Your task to perform on an android device: turn on data saver in the chrome app Image 0: 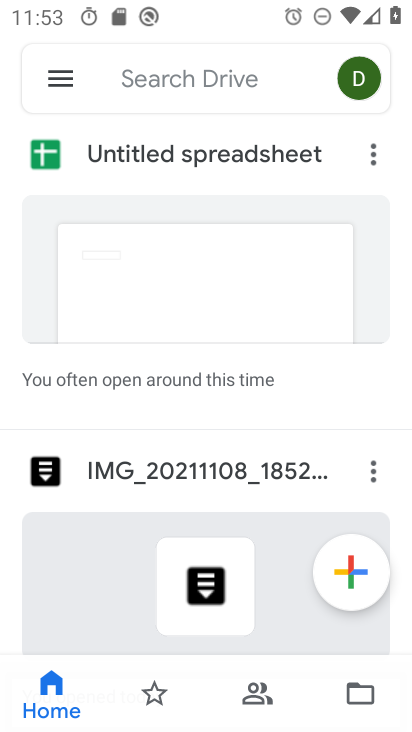
Step 0: press home button
Your task to perform on an android device: turn on data saver in the chrome app Image 1: 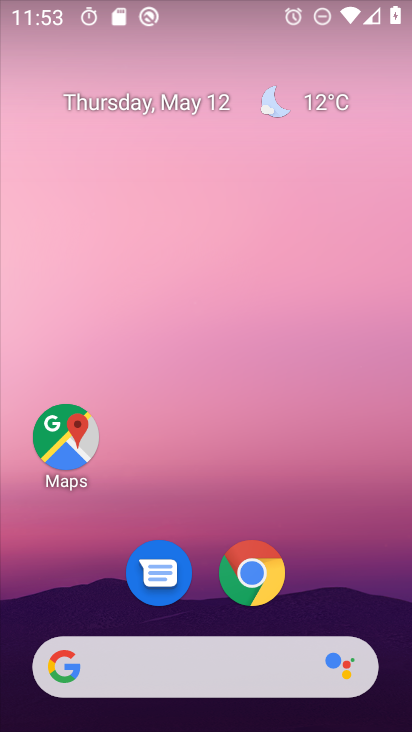
Step 1: click (243, 561)
Your task to perform on an android device: turn on data saver in the chrome app Image 2: 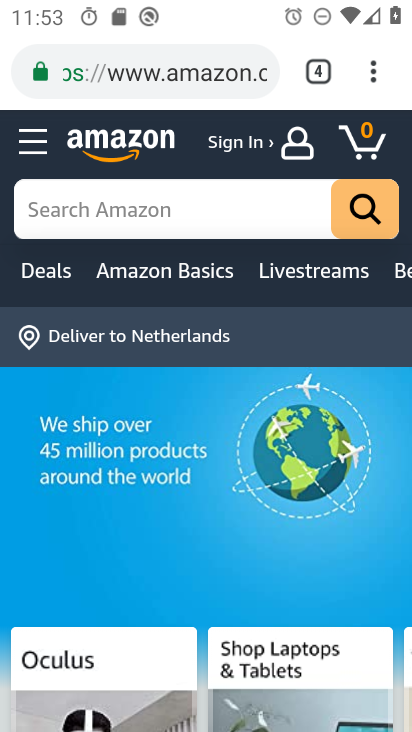
Step 2: click (376, 69)
Your task to perform on an android device: turn on data saver in the chrome app Image 3: 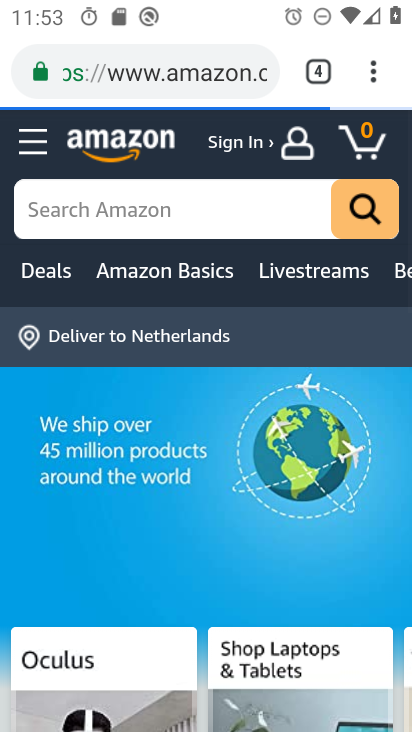
Step 3: click (376, 69)
Your task to perform on an android device: turn on data saver in the chrome app Image 4: 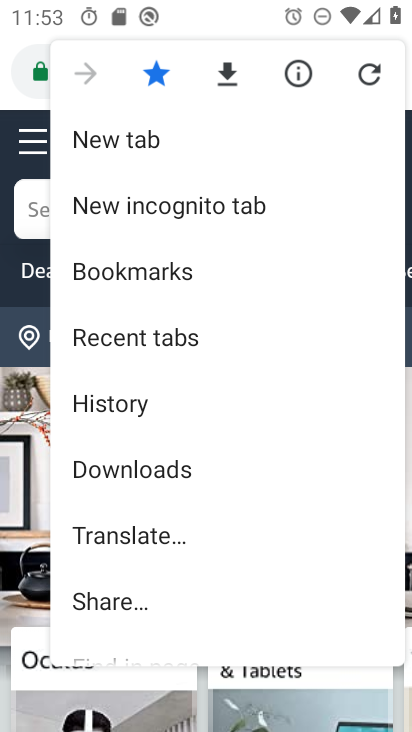
Step 4: drag from (253, 592) to (266, 416)
Your task to perform on an android device: turn on data saver in the chrome app Image 5: 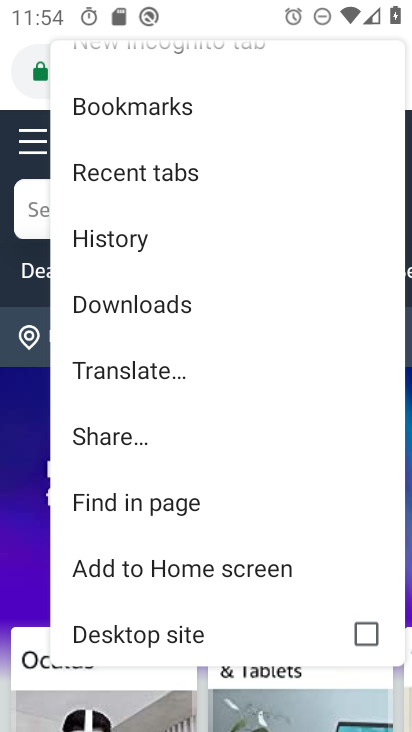
Step 5: drag from (289, 625) to (297, 363)
Your task to perform on an android device: turn on data saver in the chrome app Image 6: 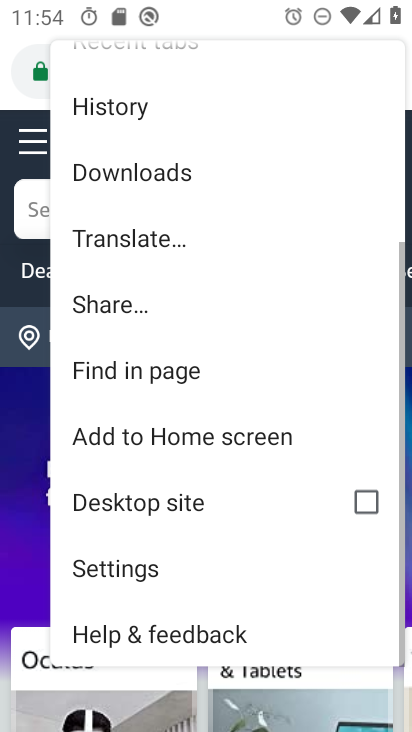
Step 6: click (131, 565)
Your task to perform on an android device: turn on data saver in the chrome app Image 7: 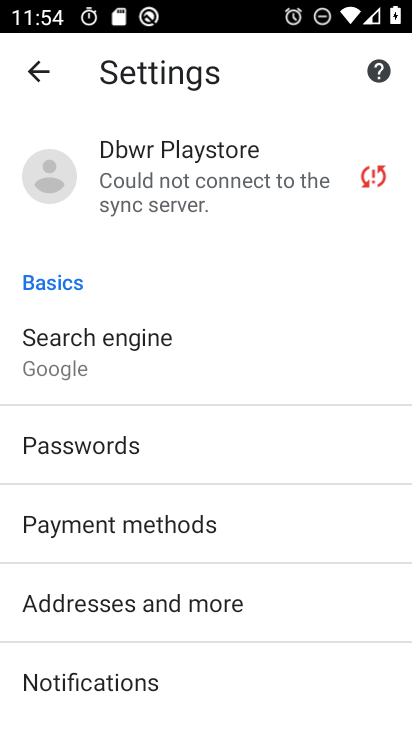
Step 7: drag from (265, 696) to (259, 538)
Your task to perform on an android device: turn on data saver in the chrome app Image 8: 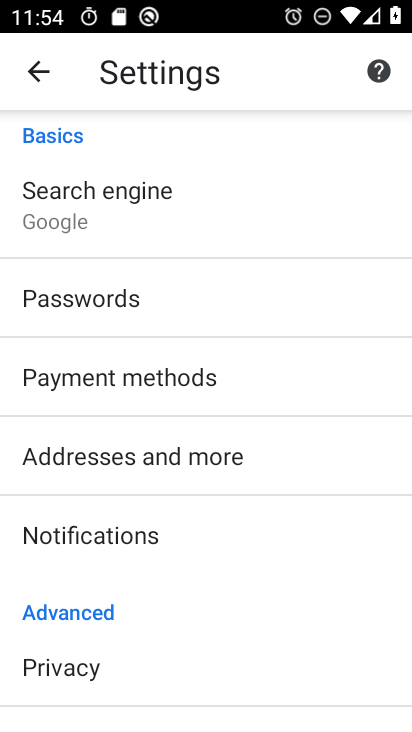
Step 8: drag from (240, 672) to (225, 422)
Your task to perform on an android device: turn on data saver in the chrome app Image 9: 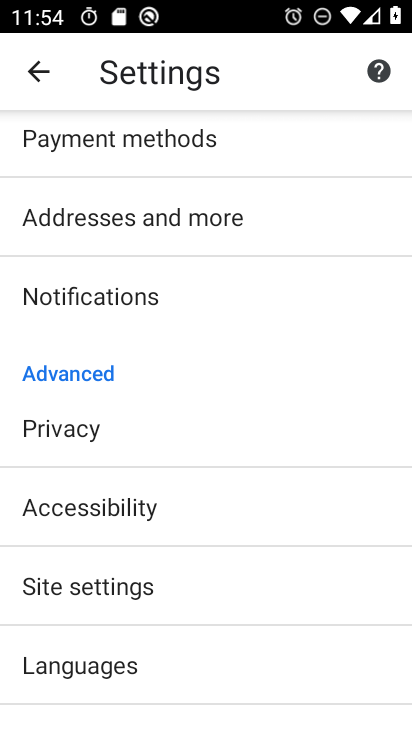
Step 9: drag from (204, 649) to (211, 391)
Your task to perform on an android device: turn on data saver in the chrome app Image 10: 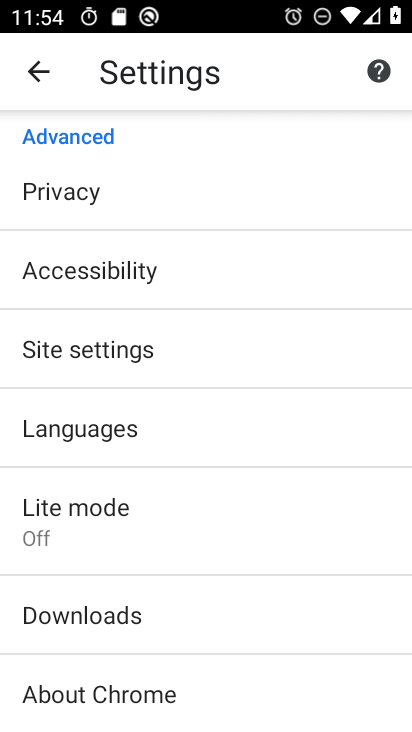
Step 10: click (102, 510)
Your task to perform on an android device: turn on data saver in the chrome app Image 11: 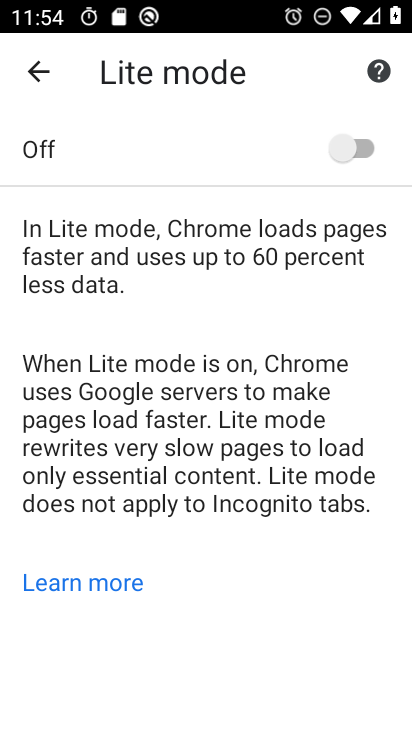
Step 11: click (354, 148)
Your task to perform on an android device: turn on data saver in the chrome app Image 12: 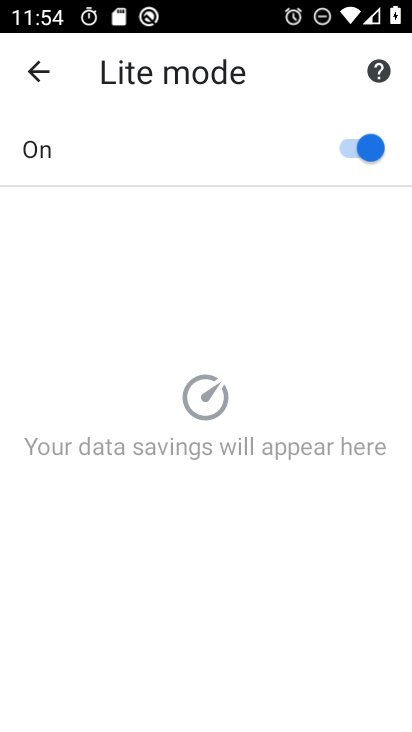
Step 12: task complete